Your task to perform on an android device: delete browsing data in the chrome app Image 0: 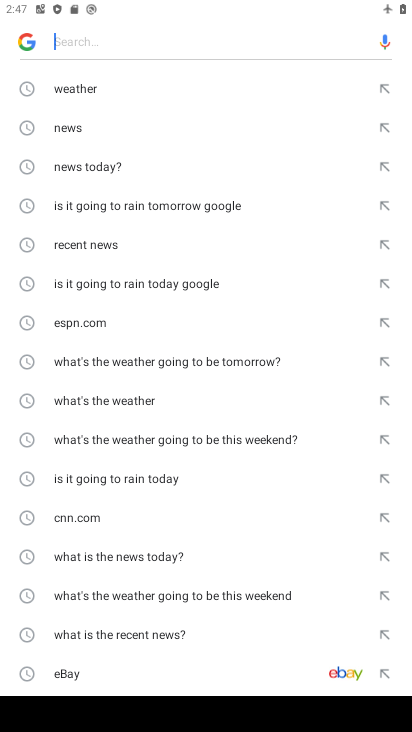
Step 0: press home button
Your task to perform on an android device: delete browsing data in the chrome app Image 1: 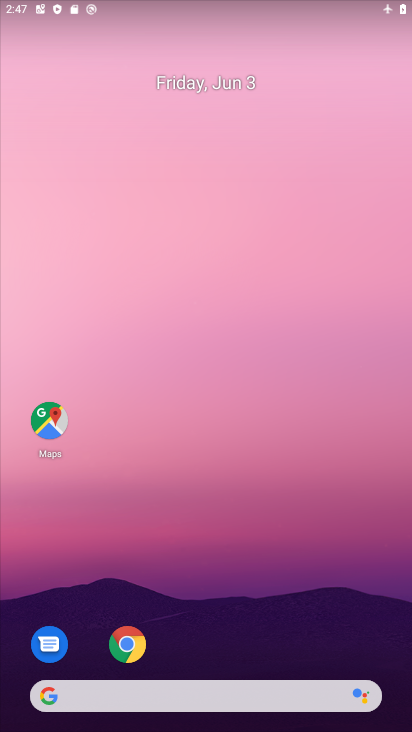
Step 1: click (44, 435)
Your task to perform on an android device: delete browsing data in the chrome app Image 2: 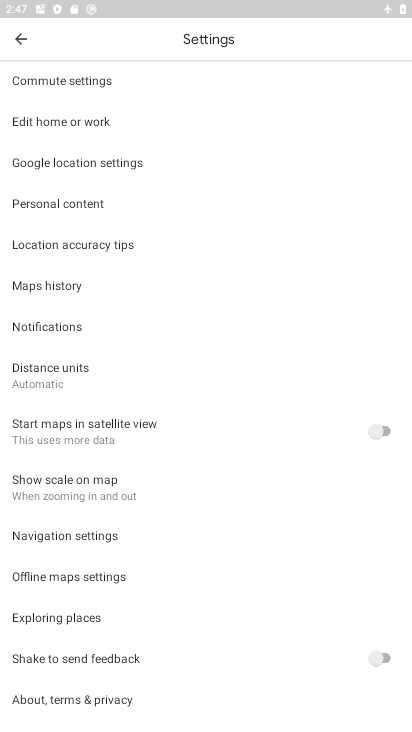
Step 2: click (22, 42)
Your task to perform on an android device: delete browsing data in the chrome app Image 3: 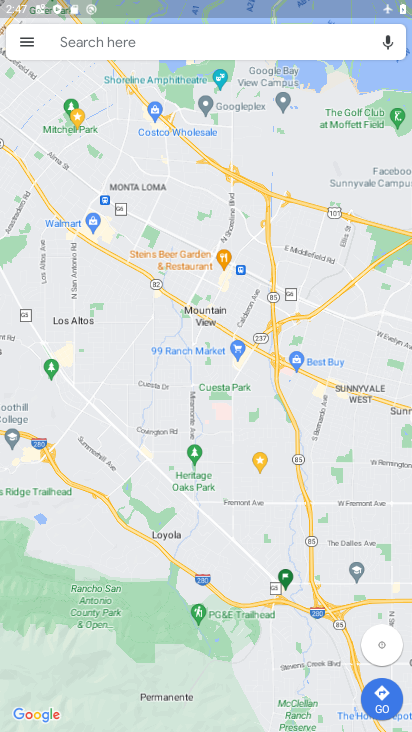
Step 3: click (32, 40)
Your task to perform on an android device: delete browsing data in the chrome app Image 4: 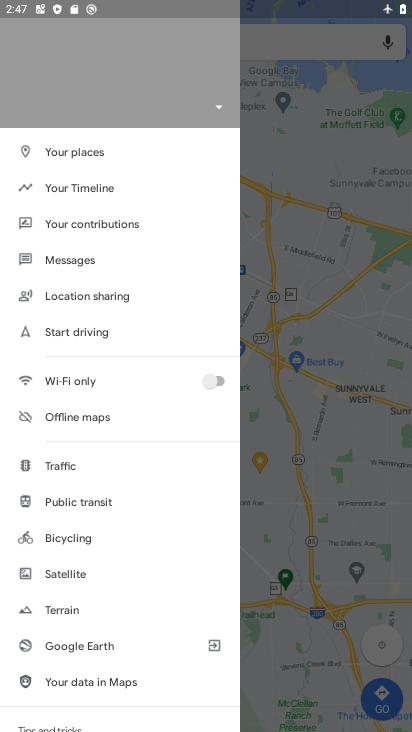
Step 4: press home button
Your task to perform on an android device: delete browsing data in the chrome app Image 5: 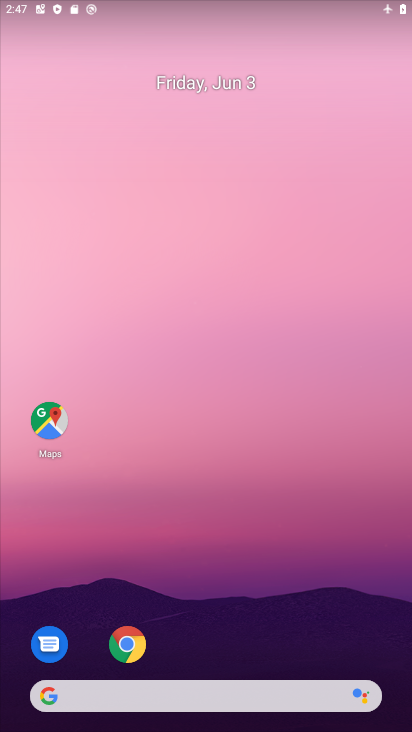
Step 5: click (120, 656)
Your task to perform on an android device: delete browsing data in the chrome app Image 6: 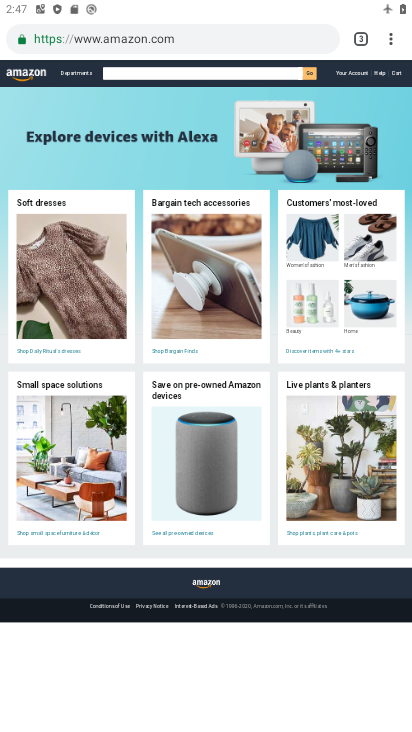
Step 6: click (395, 37)
Your task to perform on an android device: delete browsing data in the chrome app Image 7: 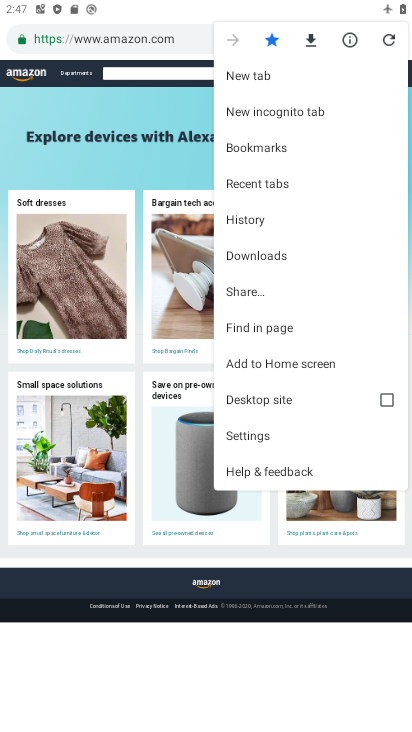
Step 7: click (261, 222)
Your task to perform on an android device: delete browsing data in the chrome app Image 8: 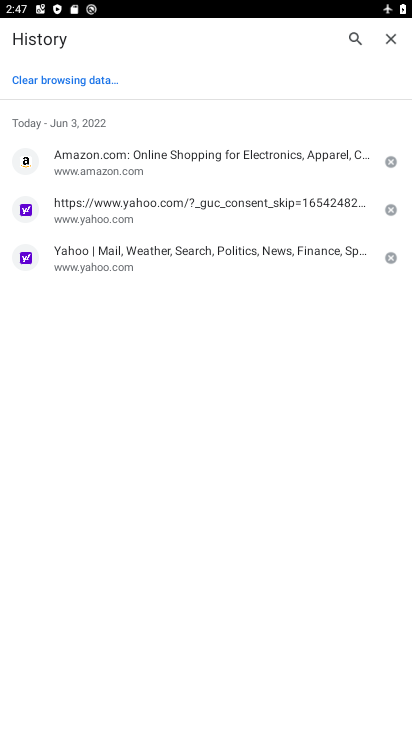
Step 8: click (85, 84)
Your task to perform on an android device: delete browsing data in the chrome app Image 9: 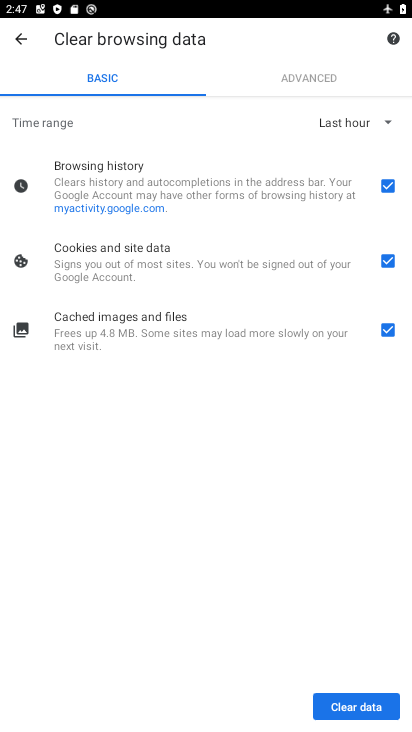
Step 9: click (359, 696)
Your task to perform on an android device: delete browsing data in the chrome app Image 10: 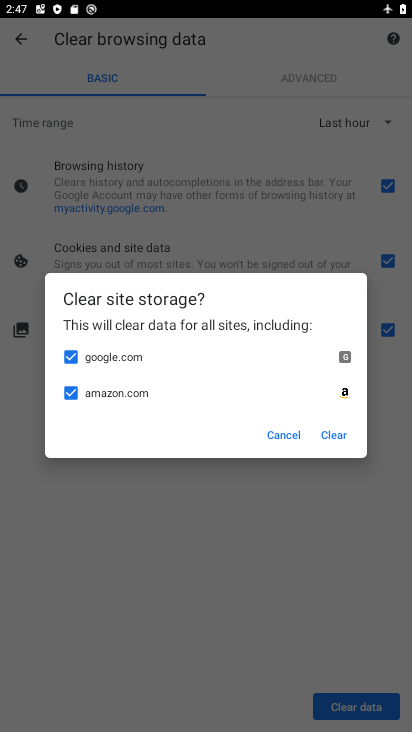
Step 10: click (324, 431)
Your task to perform on an android device: delete browsing data in the chrome app Image 11: 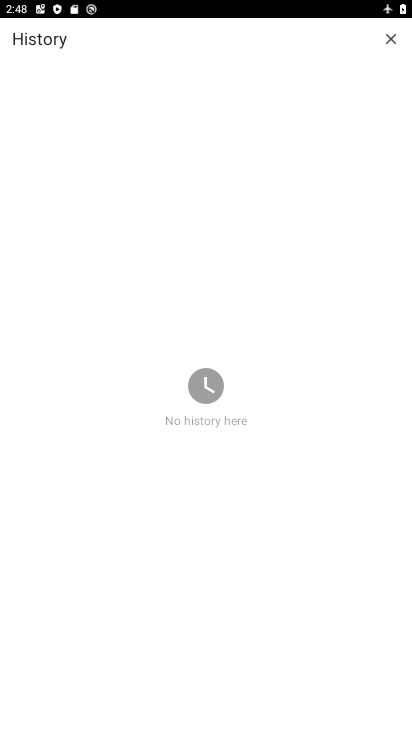
Step 11: task complete